Your task to perform on an android device: Open calendar and show me the fourth week of next month Image 0: 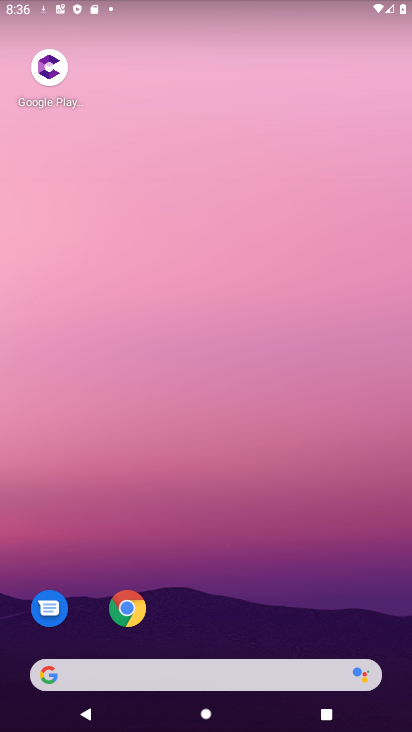
Step 0: drag from (247, 433) to (256, 124)
Your task to perform on an android device: Open calendar and show me the fourth week of next month Image 1: 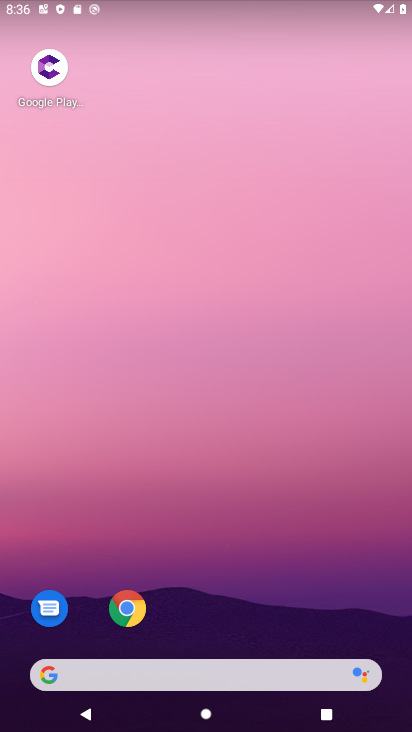
Step 1: drag from (276, 495) to (87, 323)
Your task to perform on an android device: Open calendar and show me the fourth week of next month Image 2: 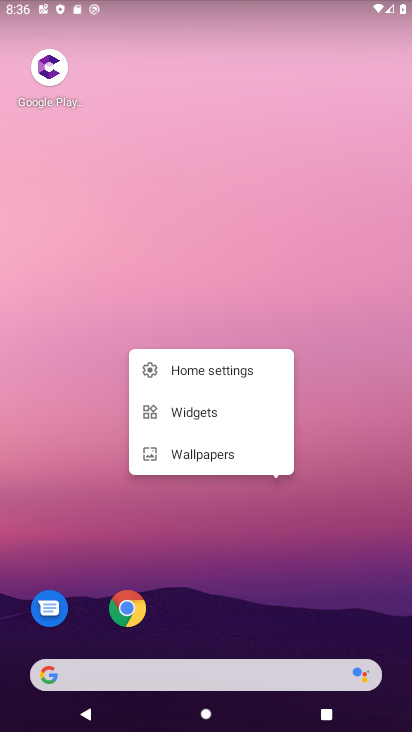
Step 2: click (224, 597)
Your task to perform on an android device: Open calendar and show me the fourth week of next month Image 3: 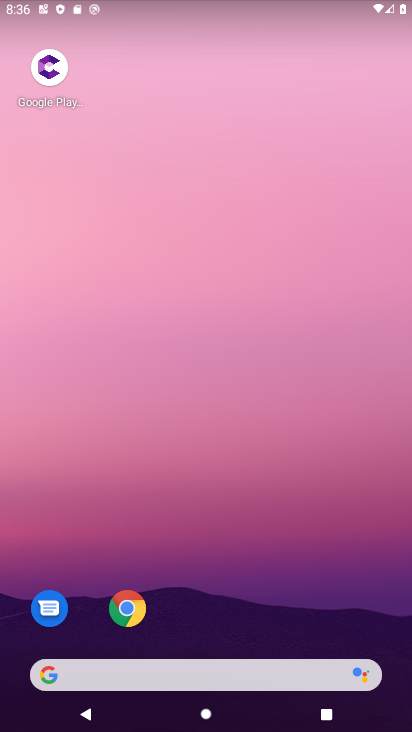
Step 3: drag from (229, 601) to (207, 60)
Your task to perform on an android device: Open calendar and show me the fourth week of next month Image 4: 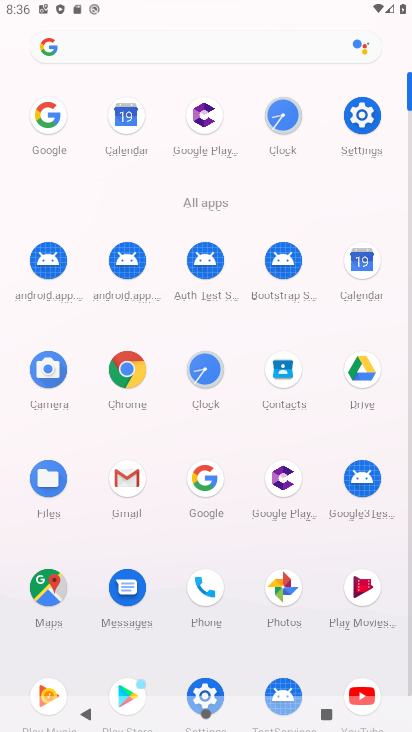
Step 4: click (364, 261)
Your task to perform on an android device: Open calendar and show me the fourth week of next month Image 5: 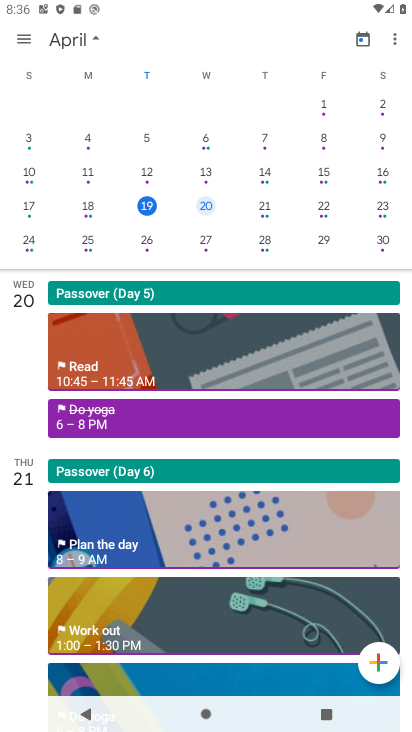
Step 5: drag from (389, 258) to (2, 201)
Your task to perform on an android device: Open calendar and show me the fourth week of next month Image 6: 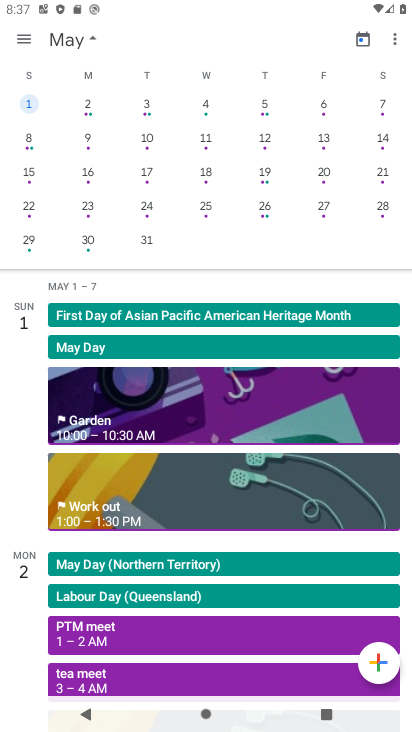
Step 6: click (146, 207)
Your task to perform on an android device: Open calendar and show me the fourth week of next month Image 7: 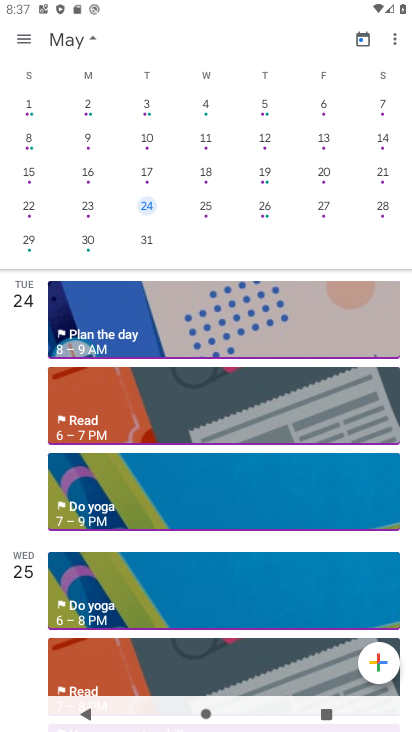
Step 7: task complete